Your task to perform on an android device: stop showing notifications on the lock screen Image 0: 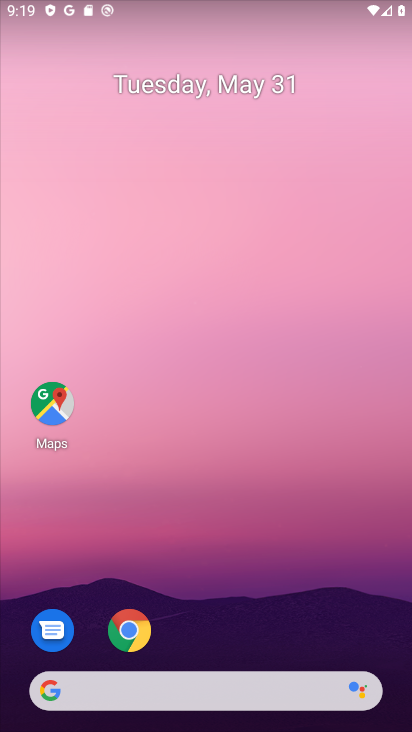
Step 0: drag from (100, 722) to (122, 98)
Your task to perform on an android device: stop showing notifications on the lock screen Image 1: 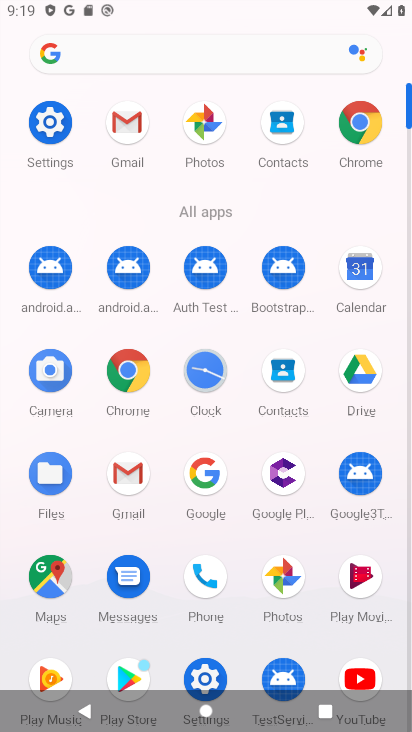
Step 1: click (51, 146)
Your task to perform on an android device: stop showing notifications on the lock screen Image 2: 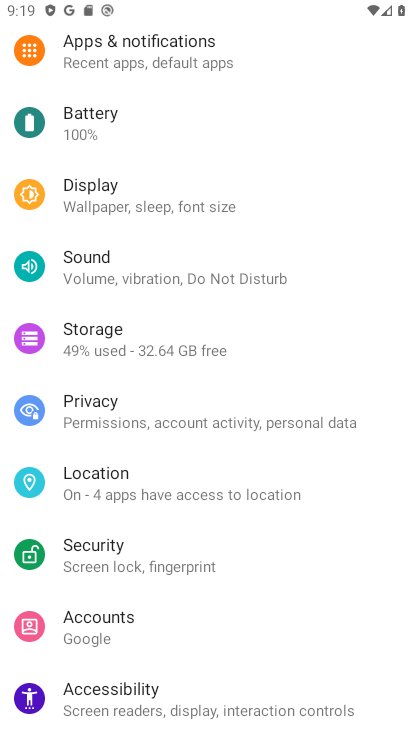
Step 2: click (218, 61)
Your task to perform on an android device: stop showing notifications on the lock screen Image 3: 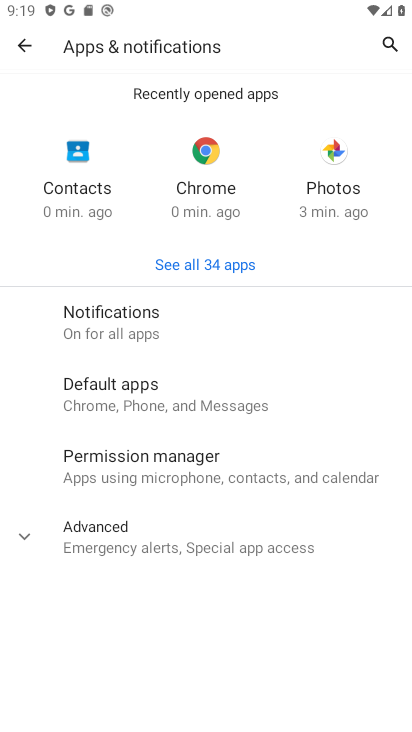
Step 3: click (175, 336)
Your task to perform on an android device: stop showing notifications on the lock screen Image 4: 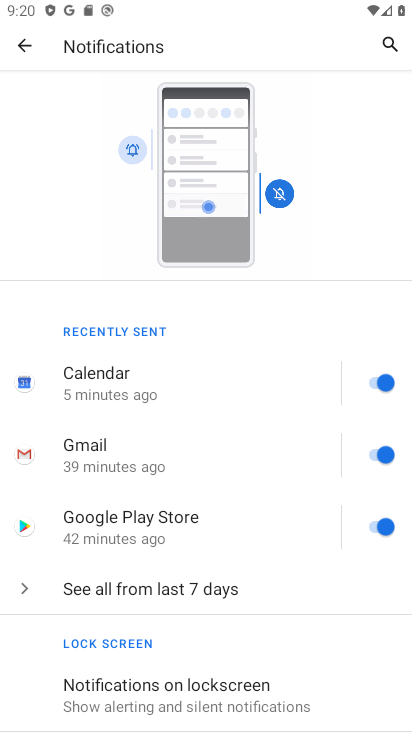
Step 4: click (167, 703)
Your task to perform on an android device: stop showing notifications on the lock screen Image 5: 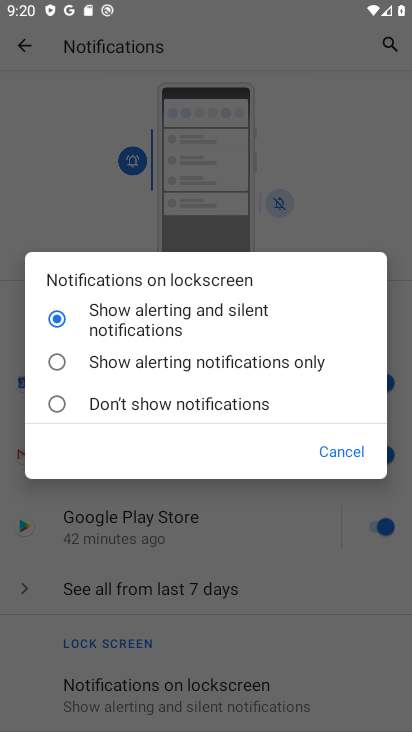
Step 5: click (253, 410)
Your task to perform on an android device: stop showing notifications on the lock screen Image 6: 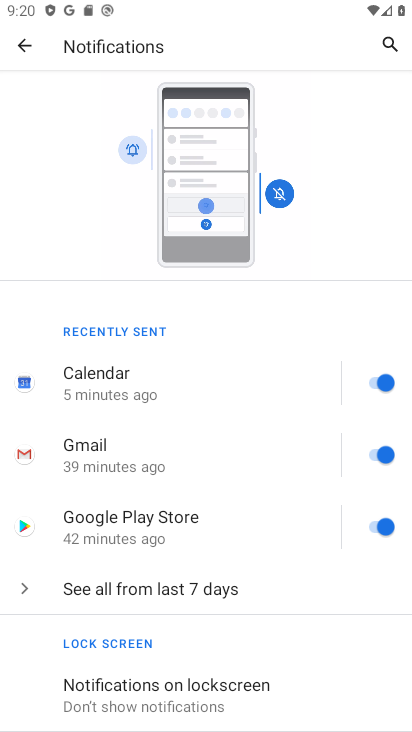
Step 6: task complete